Your task to perform on an android device: Open the map Image 0: 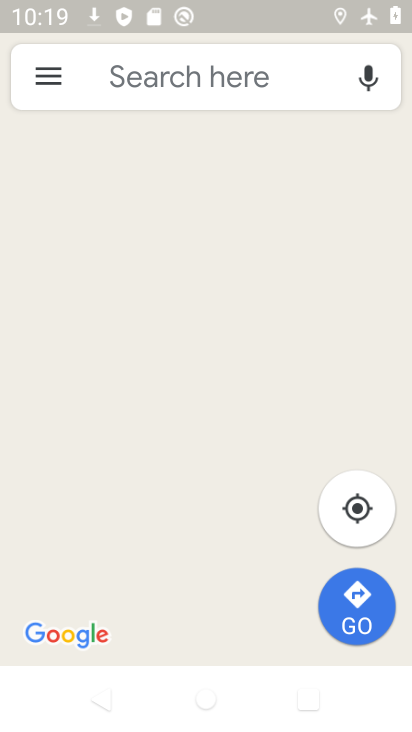
Step 0: drag from (233, 228) to (209, 645)
Your task to perform on an android device: Open the map Image 1: 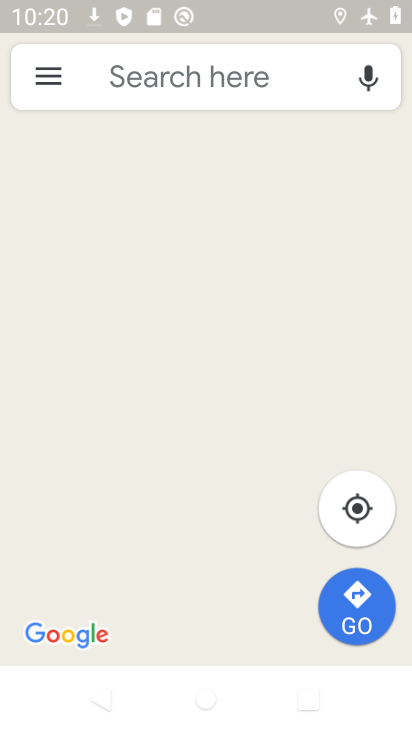
Step 1: task complete